Your task to perform on an android device: Search for a 3d printer on aliexpress Image 0: 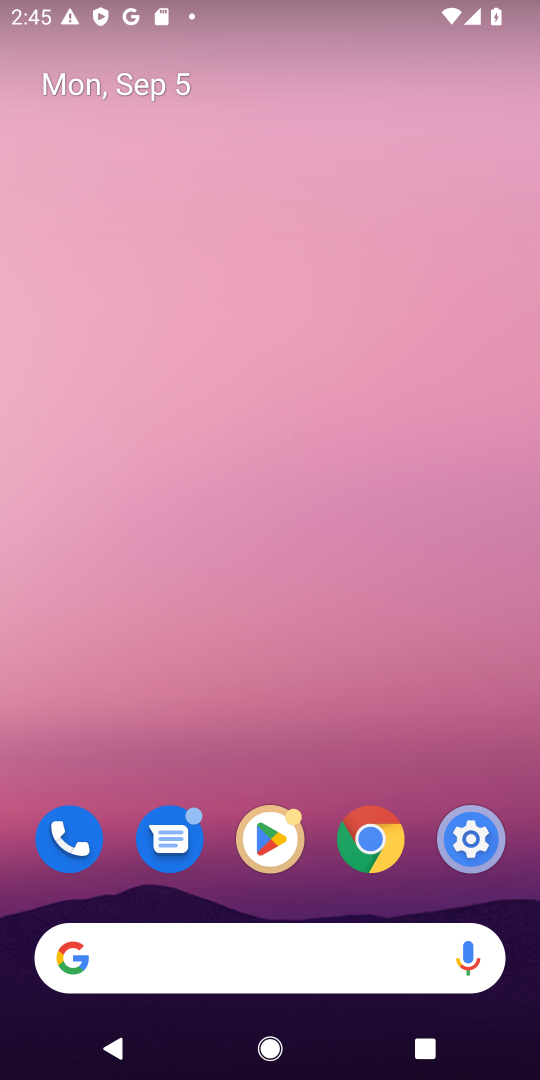
Step 0: click (391, 969)
Your task to perform on an android device: Search for a 3d printer on aliexpress Image 1: 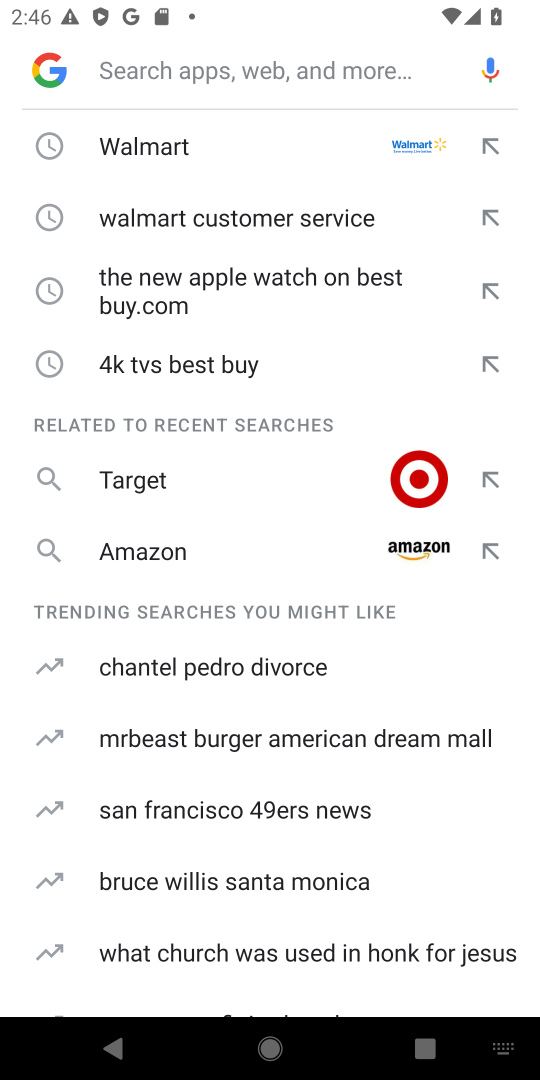
Step 1: type "aliexpress"
Your task to perform on an android device: Search for a 3d printer on aliexpress Image 2: 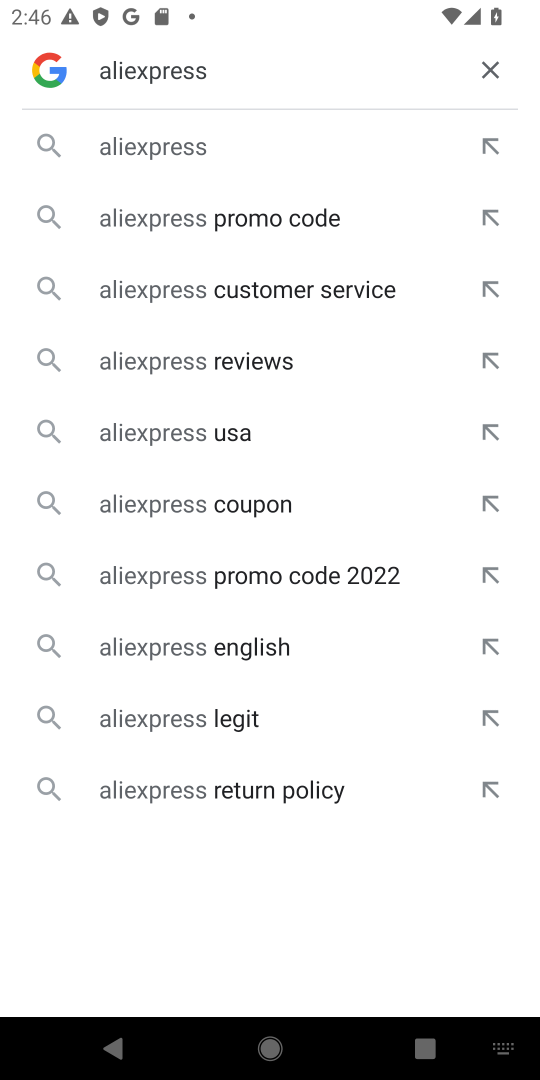
Step 2: press enter
Your task to perform on an android device: Search for a 3d printer on aliexpress Image 3: 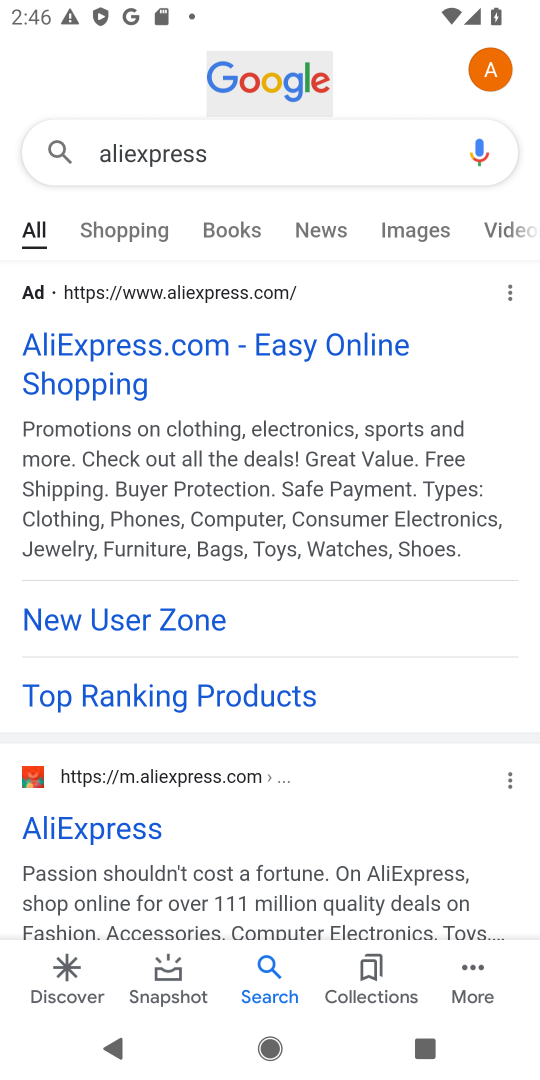
Step 3: click (159, 777)
Your task to perform on an android device: Search for a 3d printer on aliexpress Image 4: 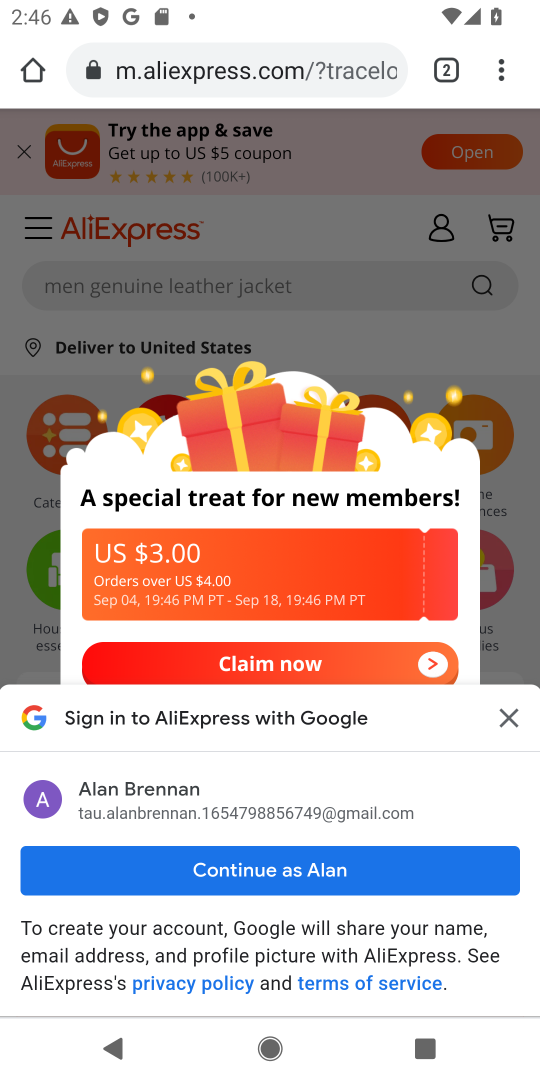
Step 4: click (512, 718)
Your task to perform on an android device: Search for a 3d printer on aliexpress Image 5: 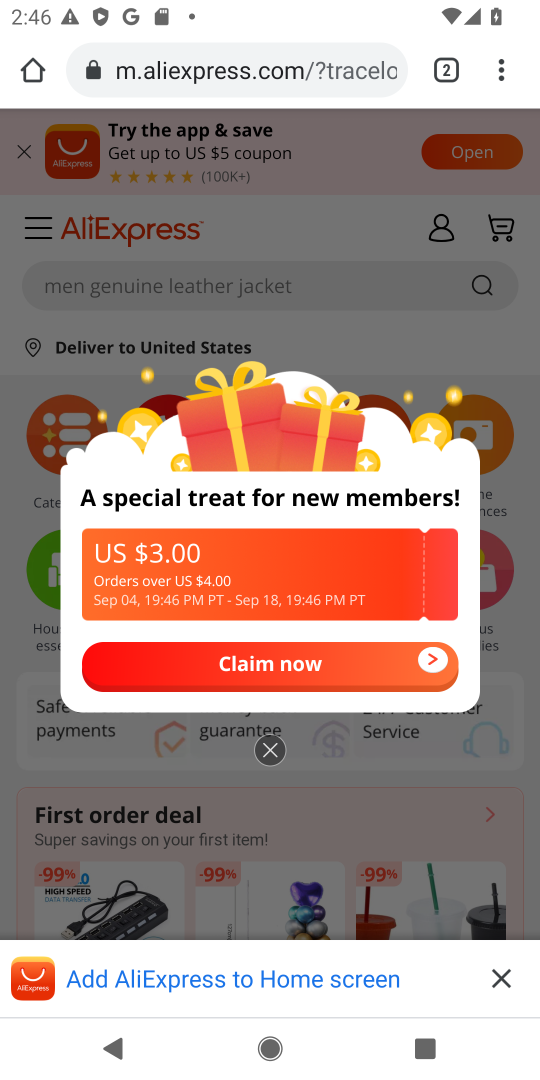
Step 5: click (270, 750)
Your task to perform on an android device: Search for a 3d printer on aliexpress Image 6: 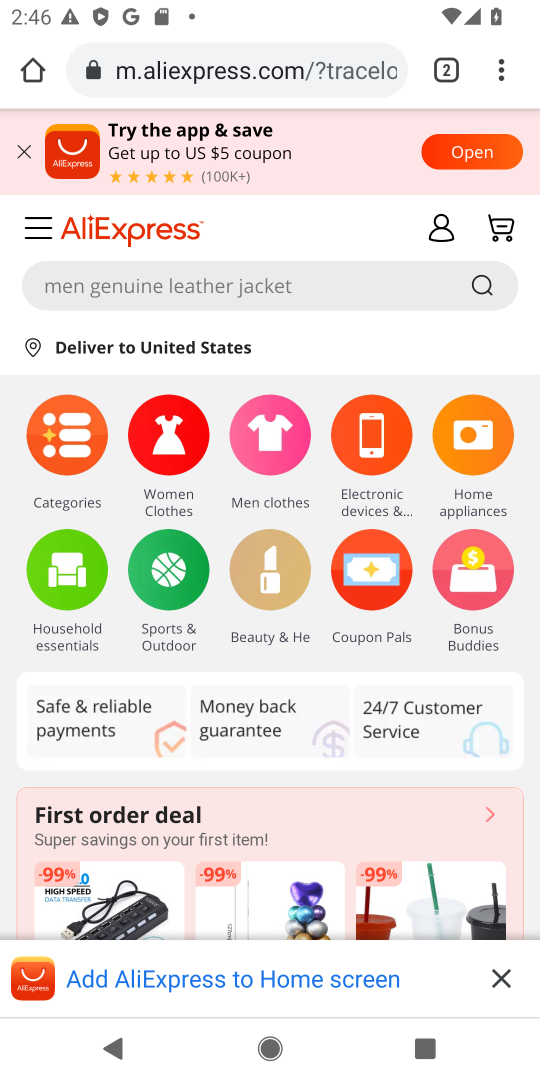
Step 6: click (258, 287)
Your task to perform on an android device: Search for a 3d printer on aliexpress Image 7: 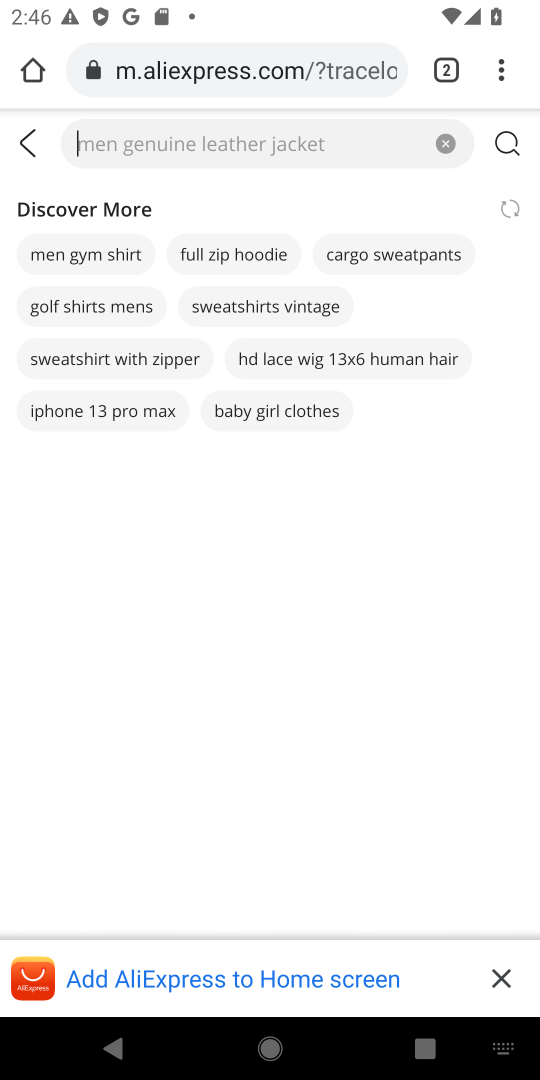
Step 7: type "3 d printer"
Your task to perform on an android device: Search for a 3d printer on aliexpress Image 8: 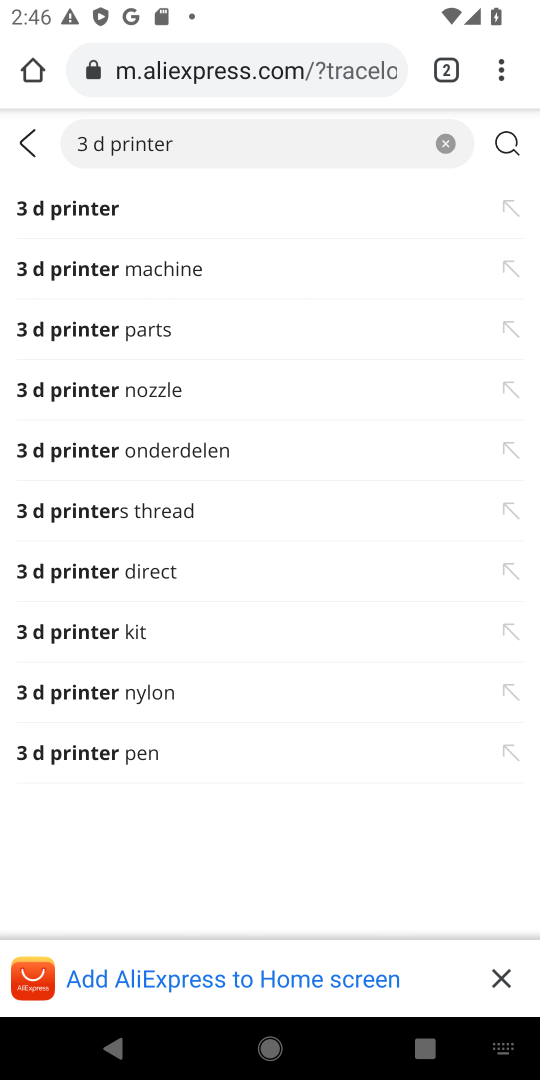
Step 8: press enter
Your task to perform on an android device: Search for a 3d printer on aliexpress Image 9: 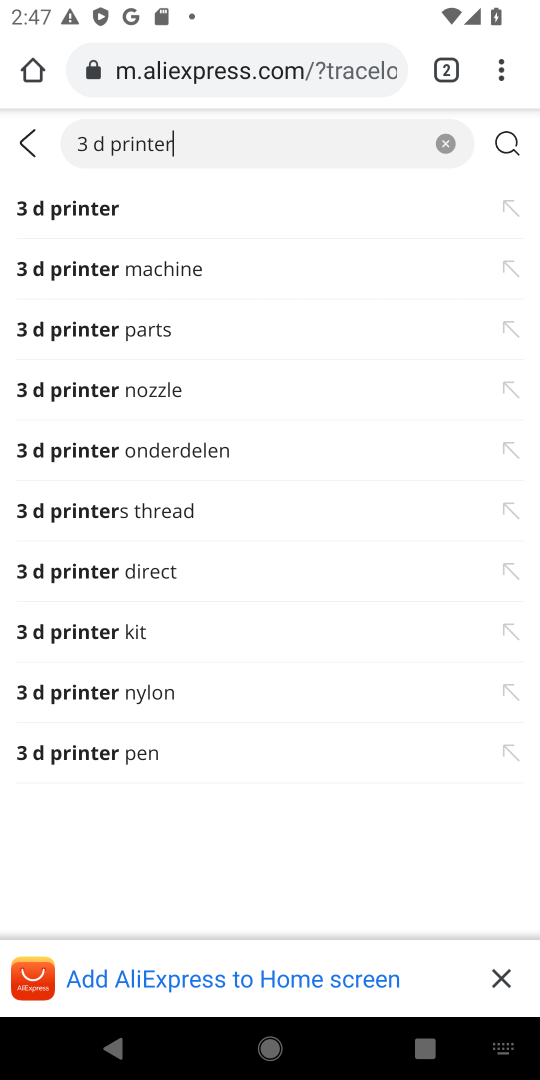
Step 9: press enter
Your task to perform on an android device: Search for a 3d printer on aliexpress Image 10: 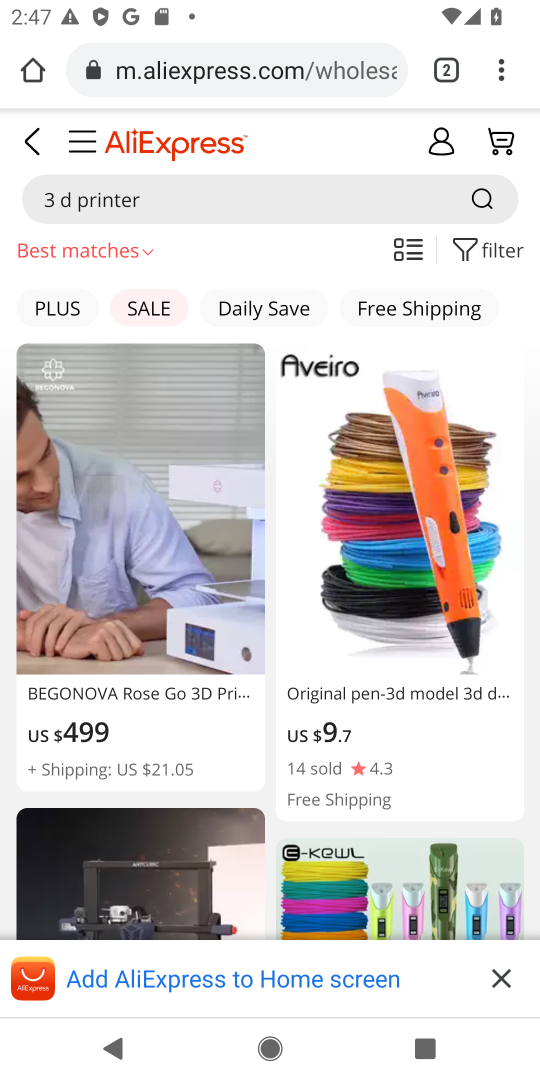
Step 10: drag from (259, 254) to (277, 121)
Your task to perform on an android device: Search for a 3d printer on aliexpress Image 11: 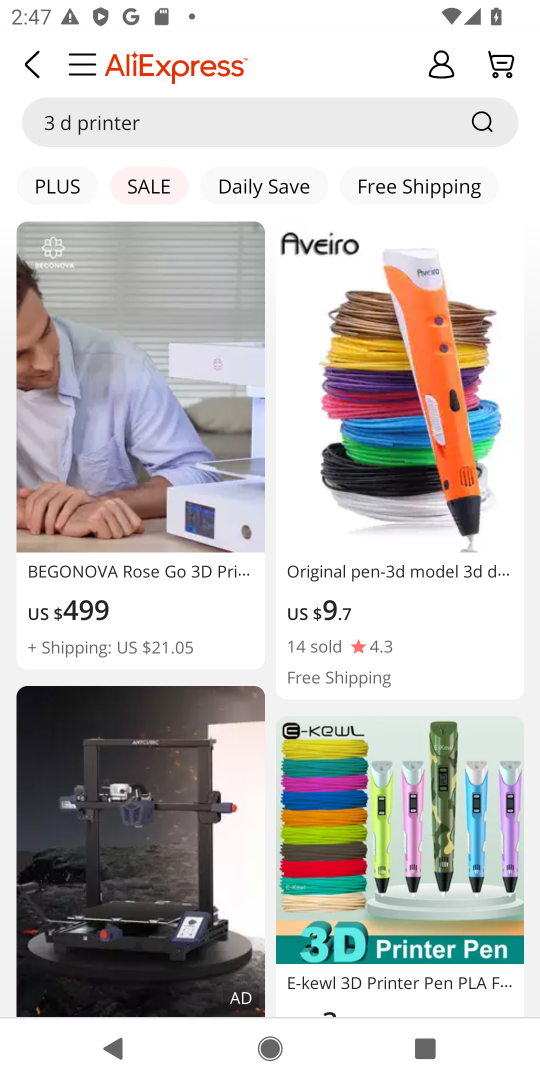
Step 11: drag from (269, 616) to (281, 535)
Your task to perform on an android device: Search for a 3d printer on aliexpress Image 12: 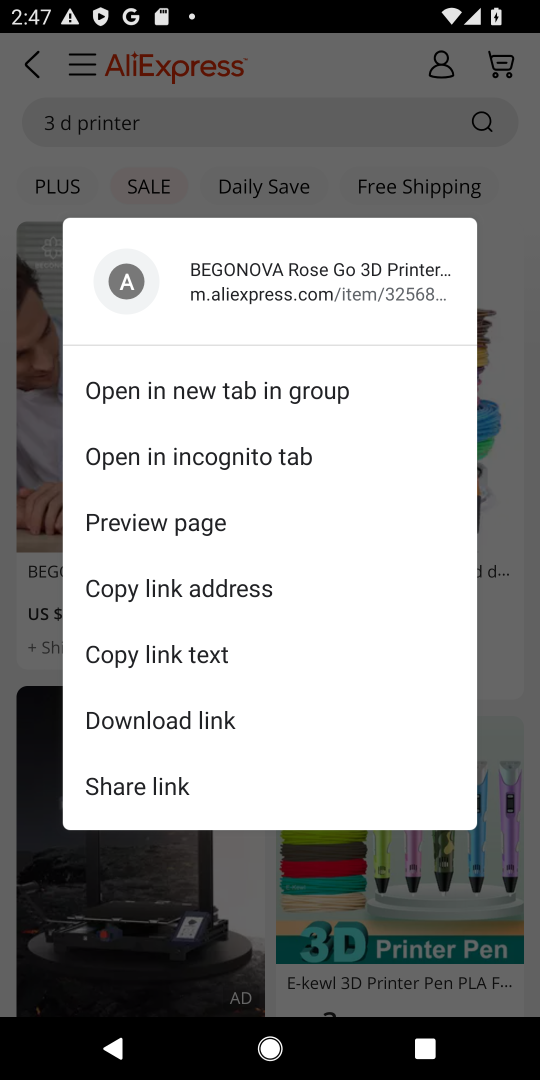
Step 12: click (282, 63)
Your task to perform on an android device: Search for a 3d printer on aliexpress Image 13: 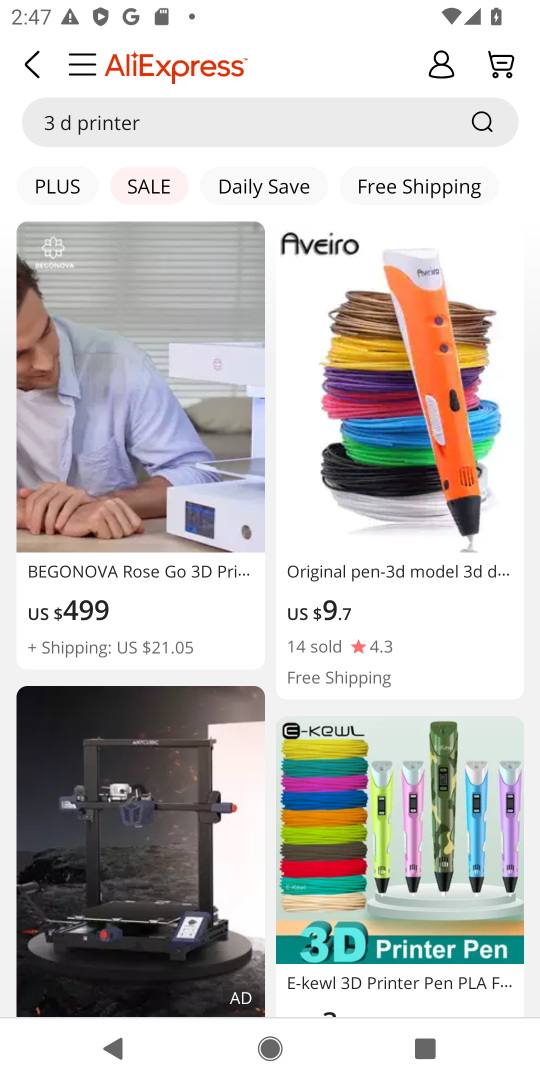
Step 13: task complete